Your task to perform on an android device: open sync settings in chrome Image 0: 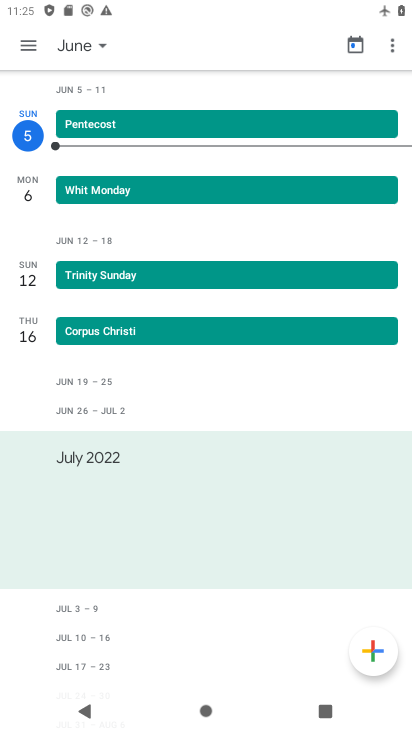
Step 0: press home button
Your task to perform on an android device: open sync settings in chrome Image 1: 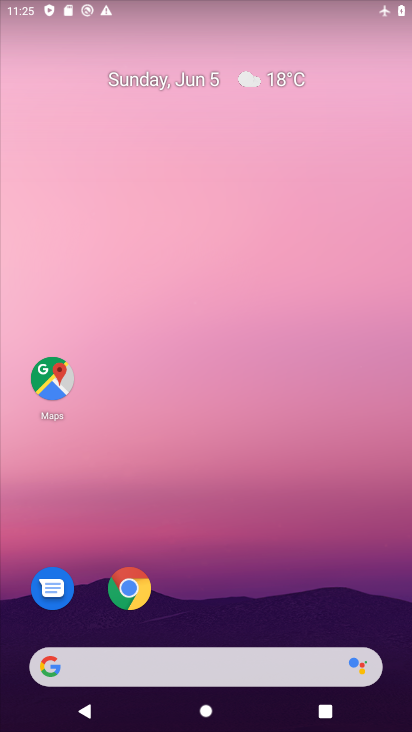
Step 1: drag from (215, 621) to (159, 158)
Your task to perform on an android device: open sync settings in chrome Image 2: 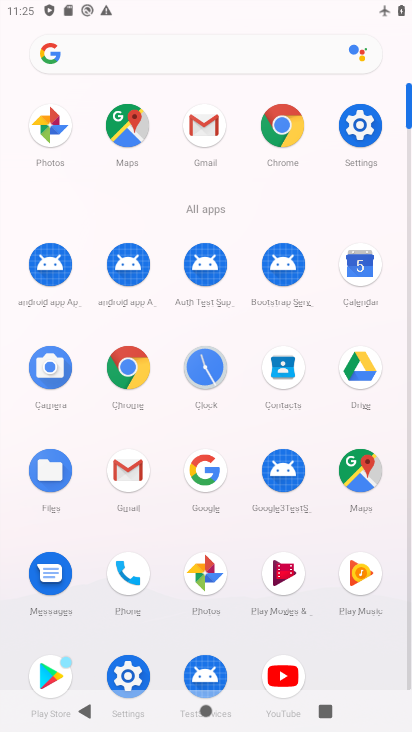
Step 2: click (293, 118)
Your task to perform on an android device: open sync settings in chrome Image 3: 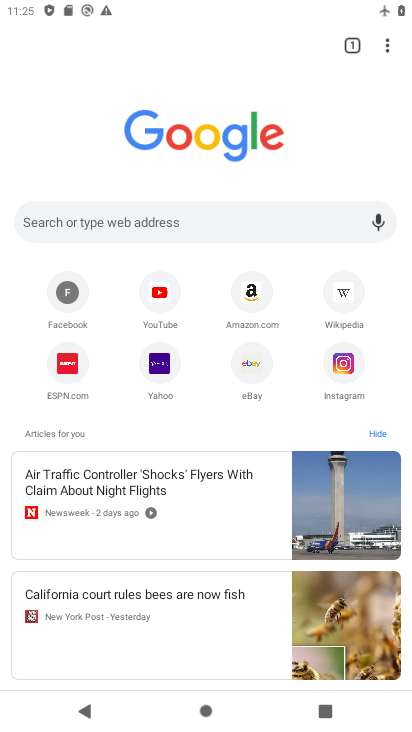
Step 3: click (384, 45)
Your task to perform on an android device: open sync settings in chrome Image 4: 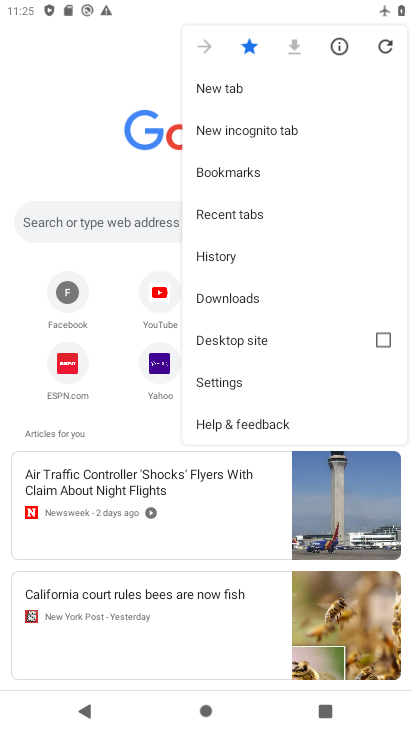
Step 4: click (258, 384)
Your task to perform on an android device: open sync settings in chrome Image 5: 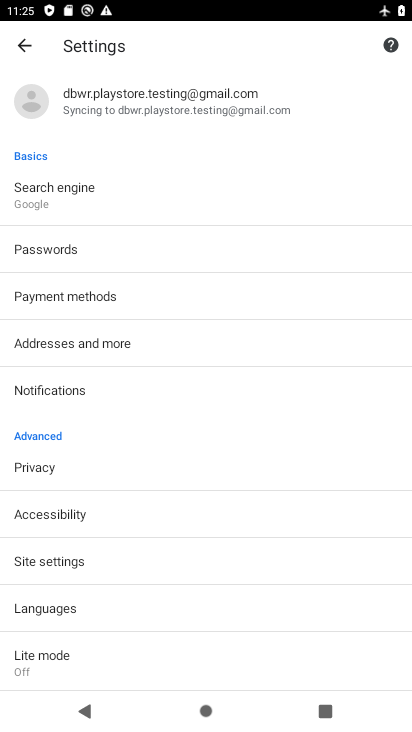
Step 5: click (188, 92)
Your task to perform on an android device: open sync settings in chrome Image 6: 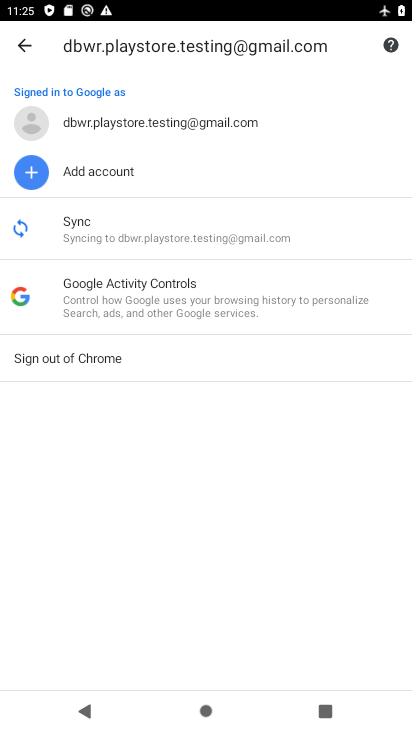
Step 6: click (216, 241)
Your task to perform on an android device: open sync settings in chrome Image 7: 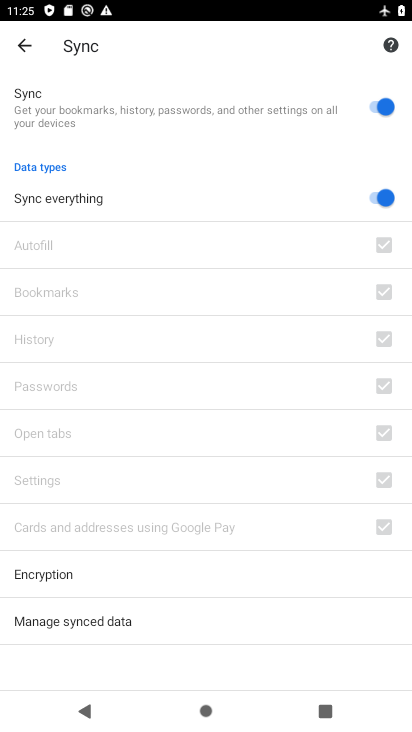
Step 7: task complete